Your task to perform on an android device: Open Yahoo.com Image 0: 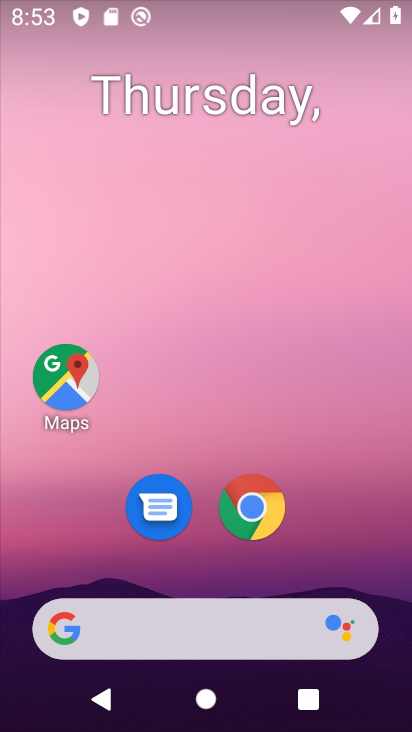
Step 0: drag from (363, 519) to (313, 198)
Your task to perform on an android device: Open Yahoo.com Image 1: 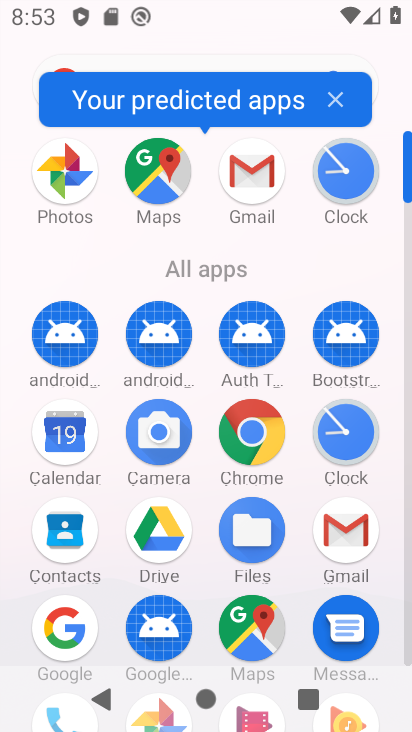
Step 1: click (252, 417)
Your task to perform on an android device: Open Yahoo.com Image 2: 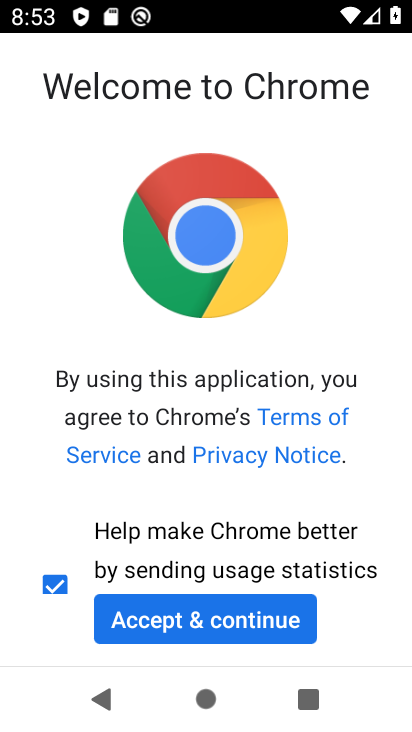
Step 2: click (217, 630)
Your task to perform on an android device: Open Yahoo.com Image 3: 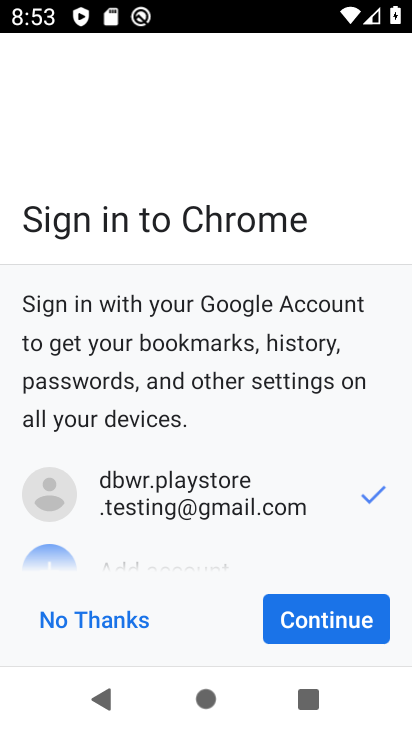
Step 3: click (297, 633)
Your task to perform on an android device: Open Yahoo.com Image 4: 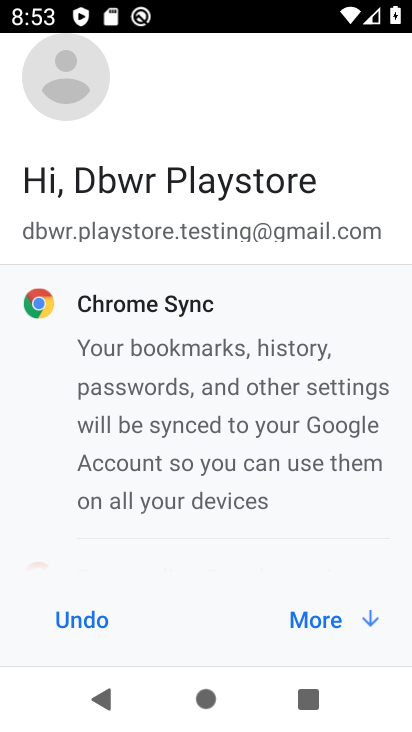
Step 4: click (297, 633)
Your task to perform on an android device: Open Yahoo.com Image 5: 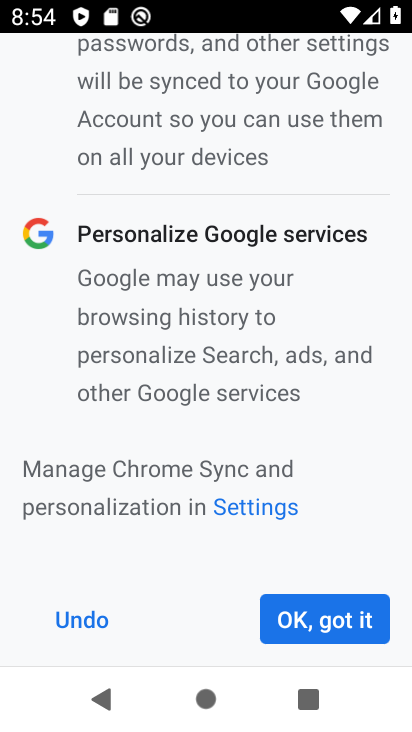
Step 5: click (297, 633)
Your task to perform on an android device: Open Yahoo.com Image 6: 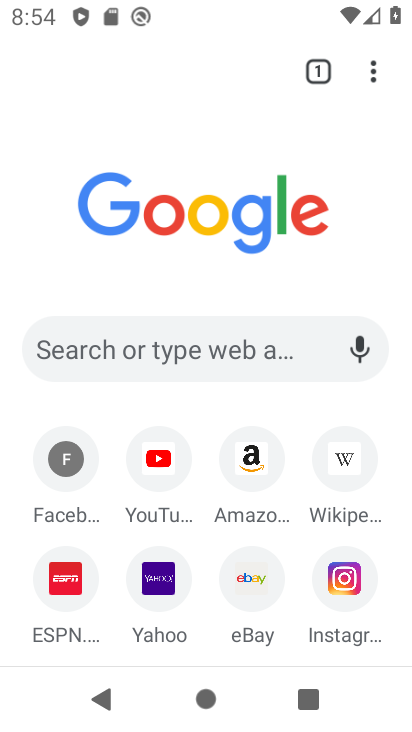
Step 6: click (155, 588)
Your task to perform on an android device: Open Yahoo.com Image 7: 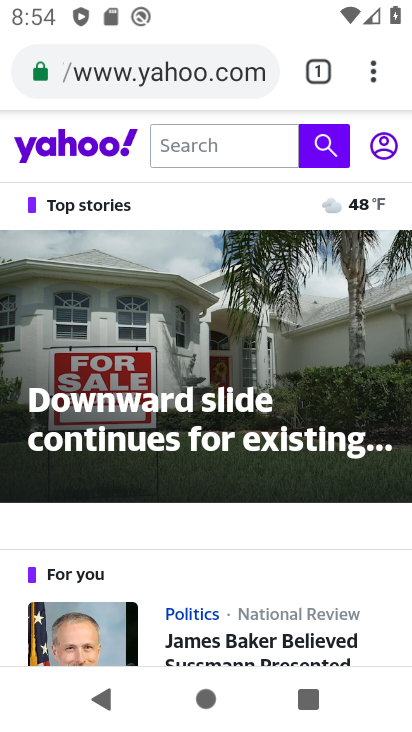
Step 7: task complete